Your task to perform on an android device: open app "Google Home" (install if not already installed) Image 0: 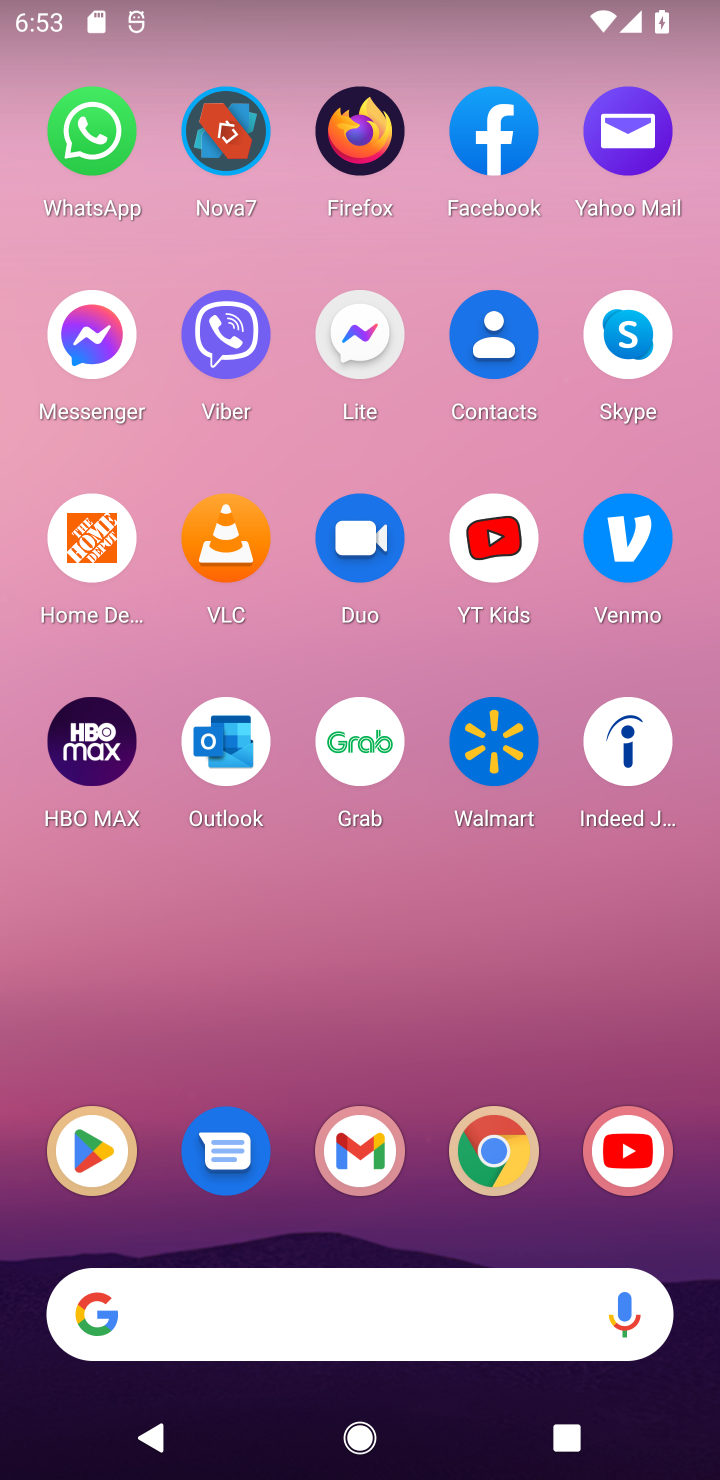
Step 0: click (101, 1157)
Your task to perform on an android device: open app "Google Home" (install if not already installed) Image 1: 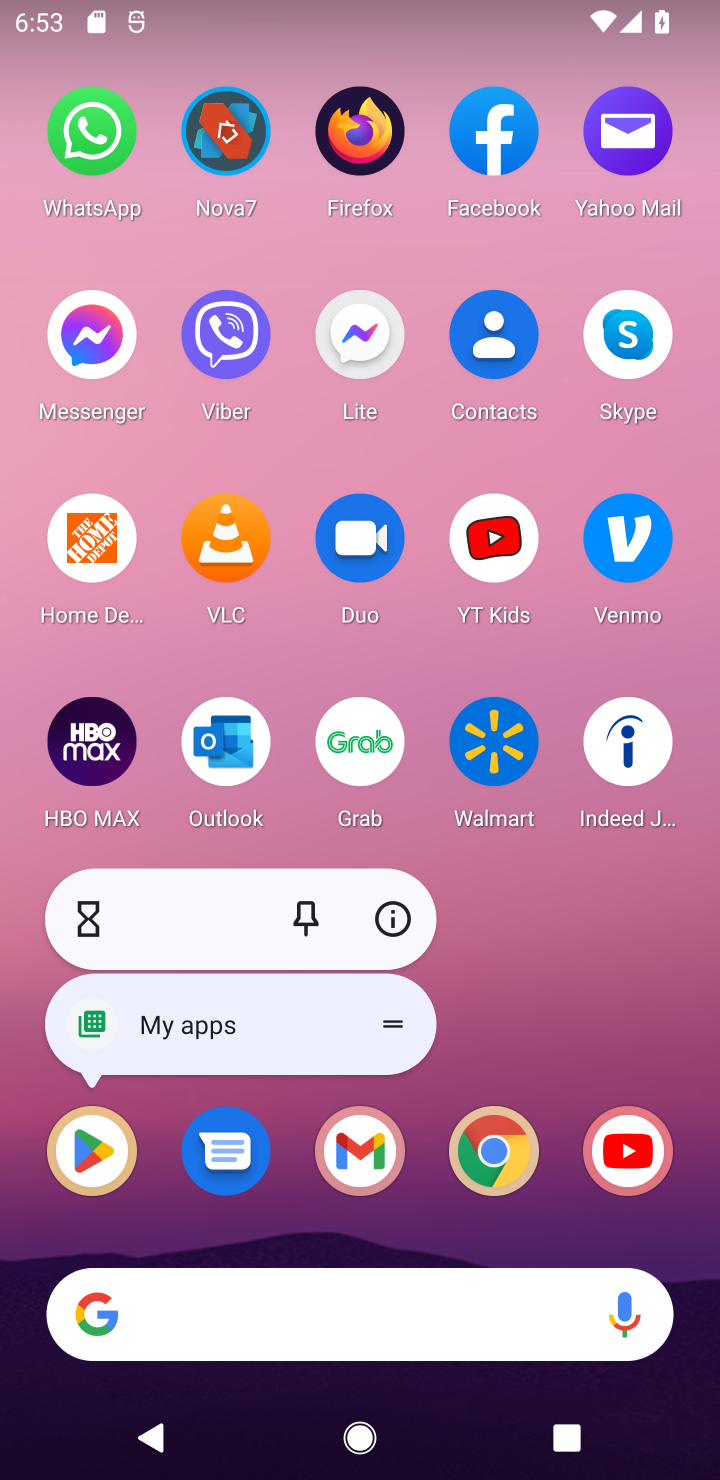
Step 1: click (101, 1157)
Your task to perform on an android device: open app "Google Home" (install if not already installed) Image 2: 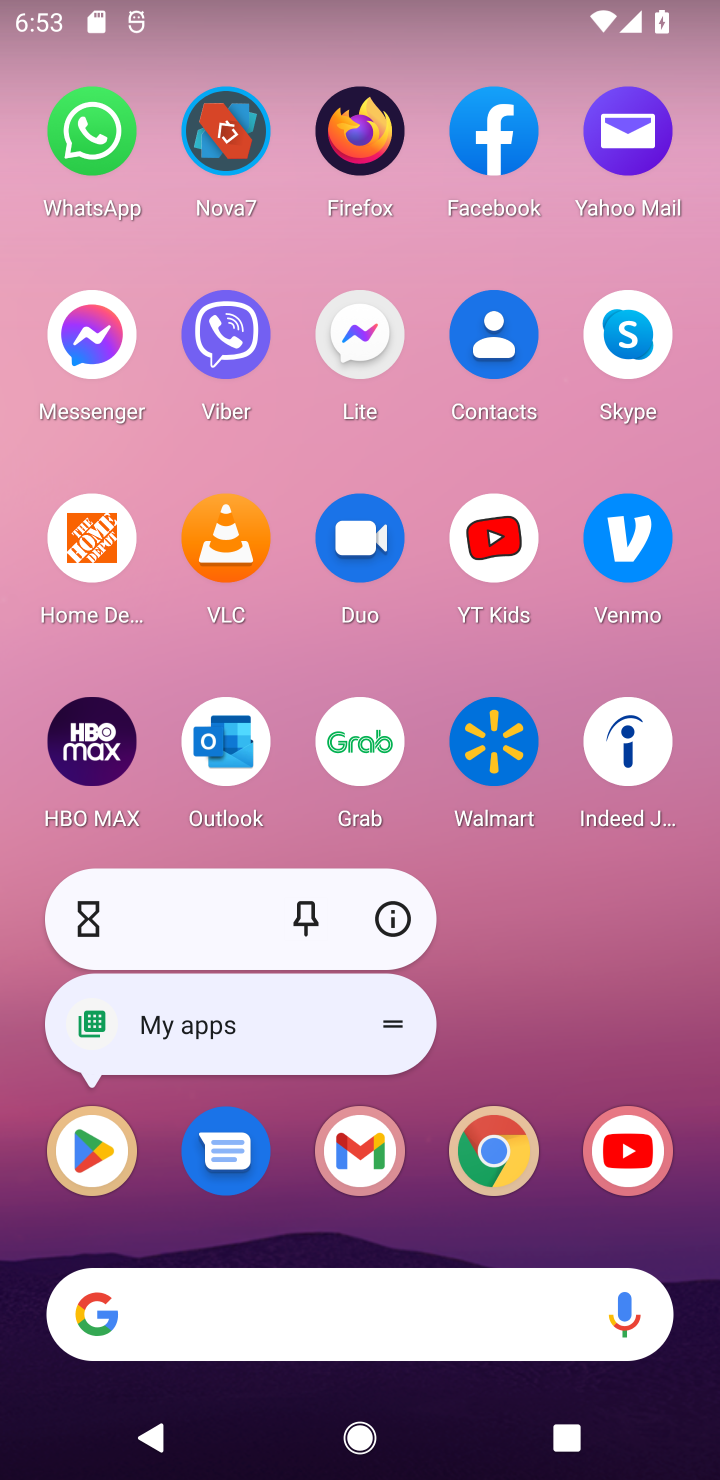
Step 2: click (101, 1157)
Your task to perform on an android device: open app "Google Home" (install if not already installed) Image 3: 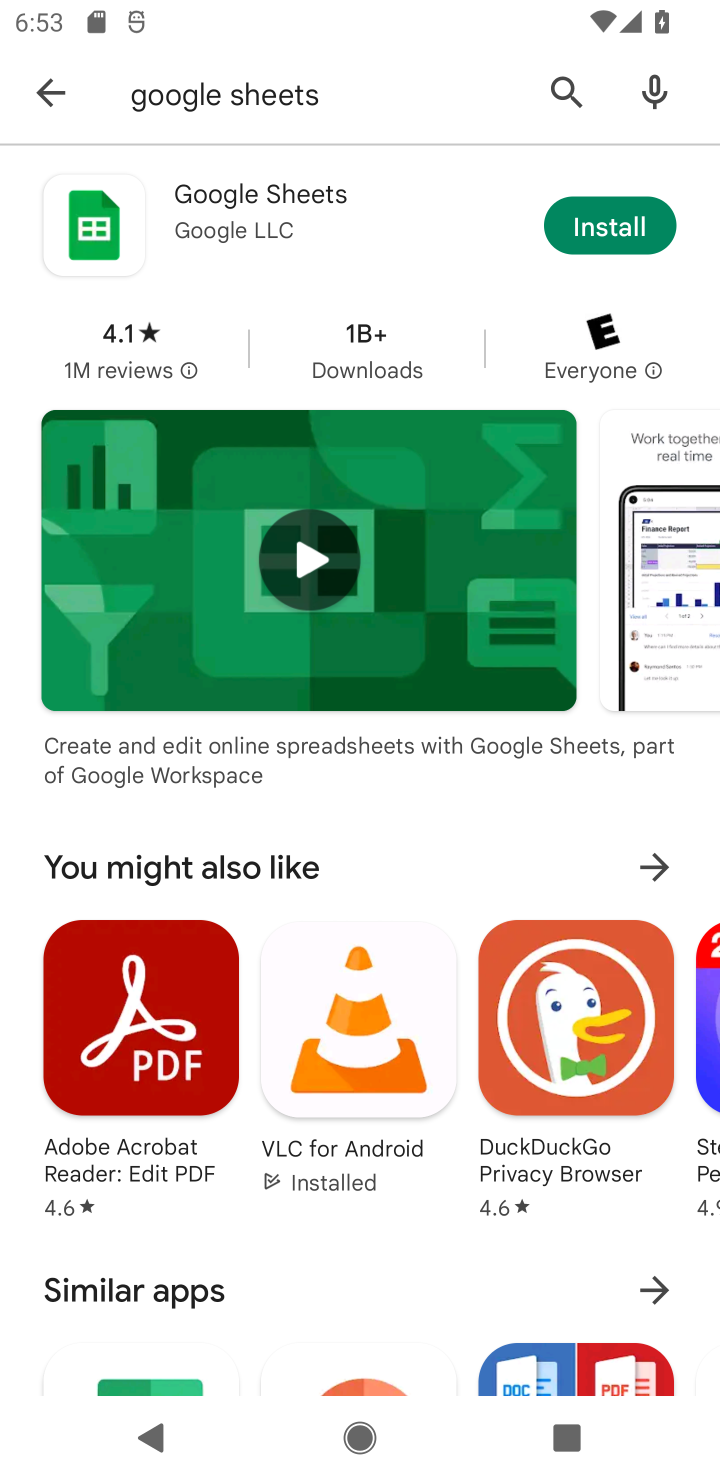
Step 3: click (575, 86)
Your task to perform on an android device: open app "Google Home" (install if not already installed) Image 4: 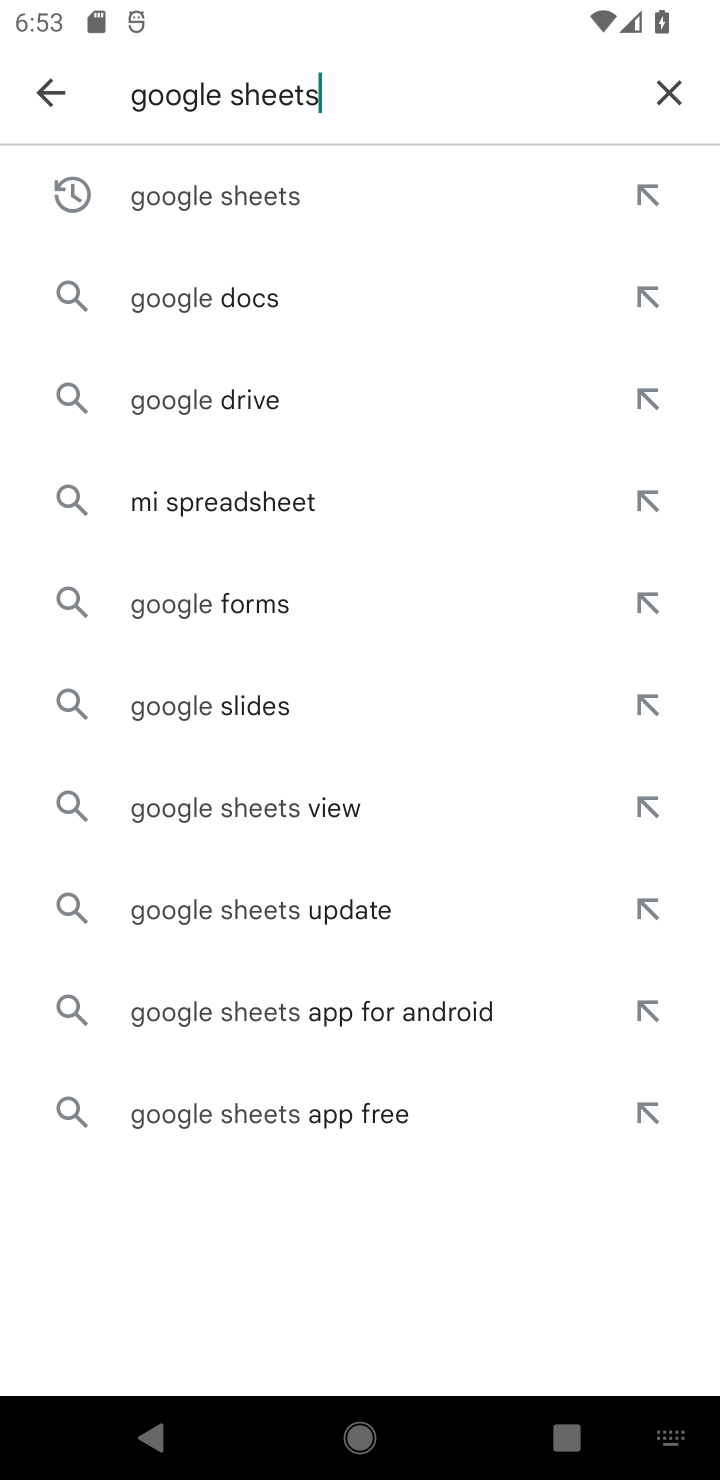
Step 4: click (666, 100)
Your task to perform on an android device: open app "Google Home" (install if not already installed) Image 5: 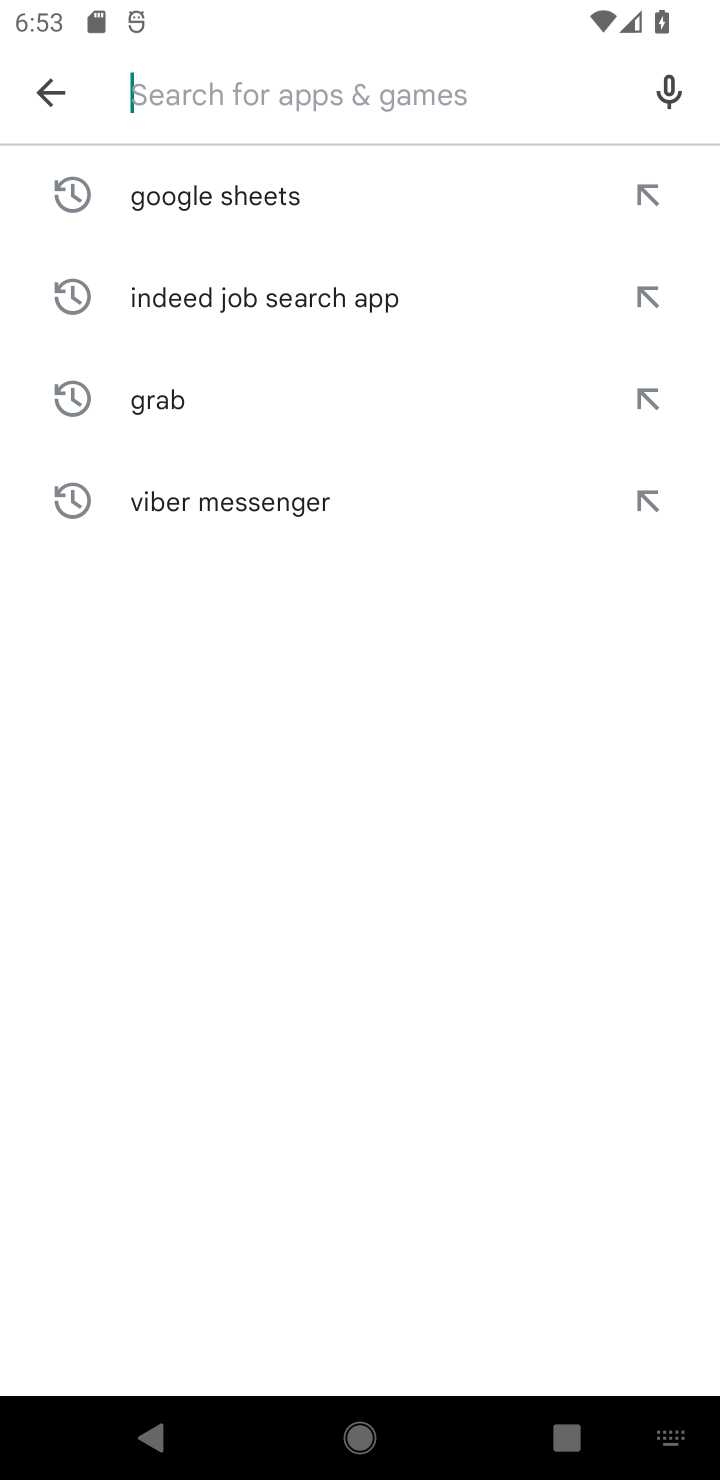
Step 5: type "Google Home"
Your task to perform on an android device: open app "Google Home" (install if not already installed) Image 6: 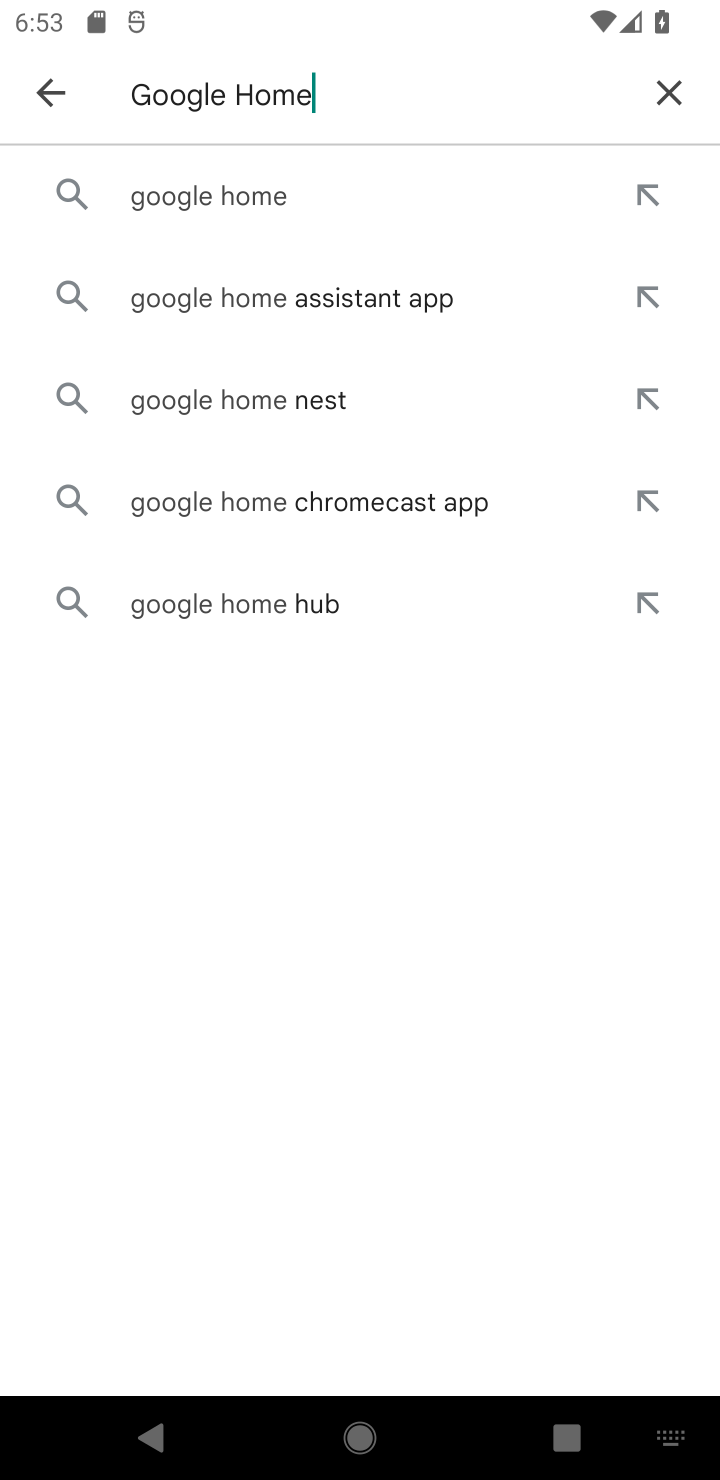
Step 6: click (204, 192)
Your task to perform on an android device: open app "Google Home" (install if not already installed) Image 7: 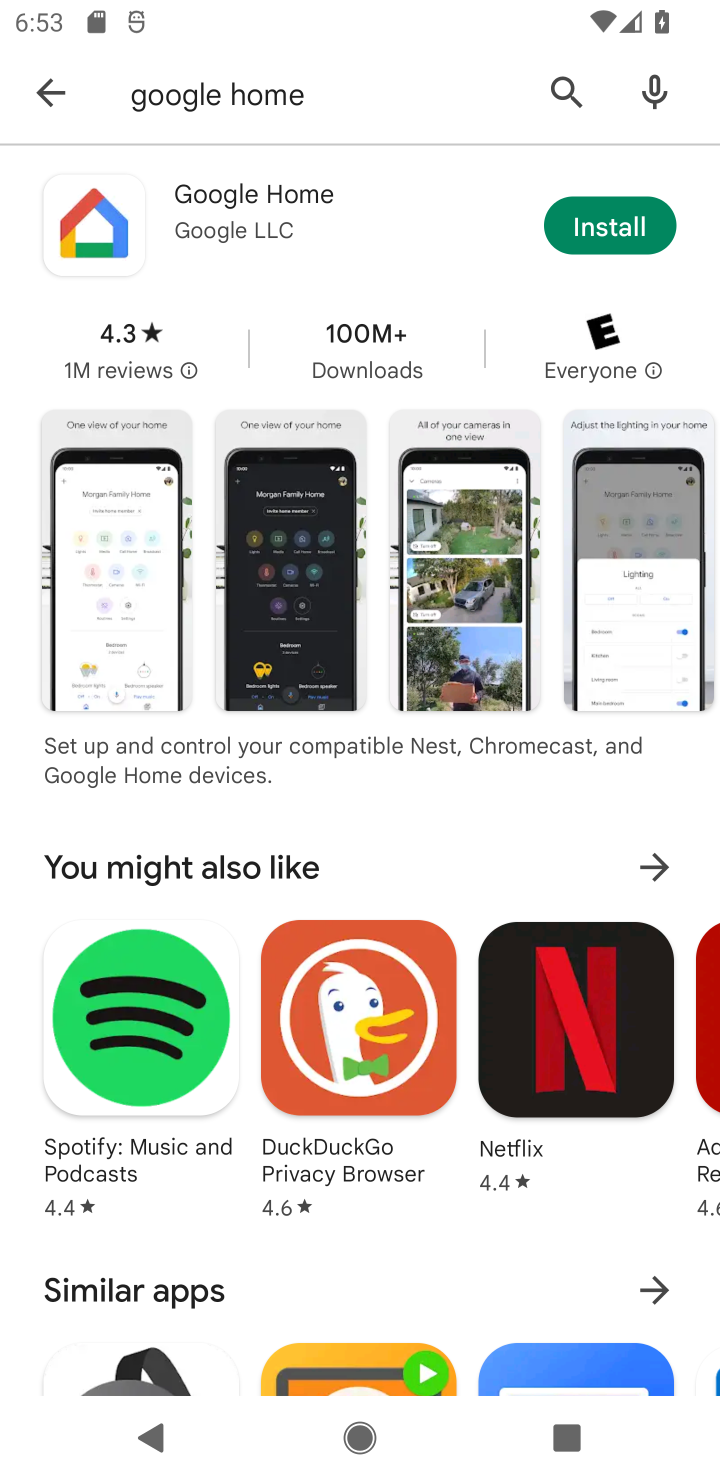
Step 7: click (609, 222)
Your task to perform on an android device: open app "Google Home" (install if not already installed) Image 8: 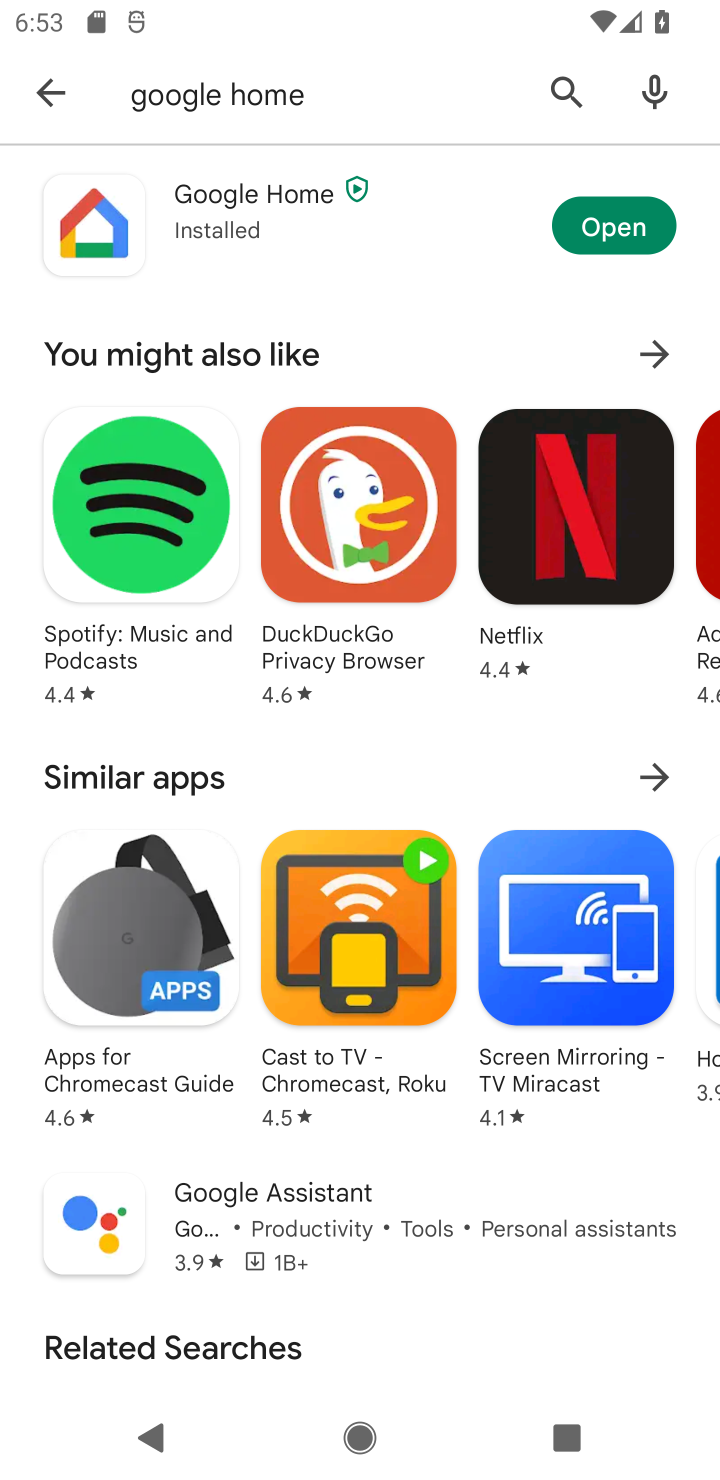
Step 8: click (609, 222)
Your task to perform on an android device: open app "Google Home" (install if not already installed) Image 9: 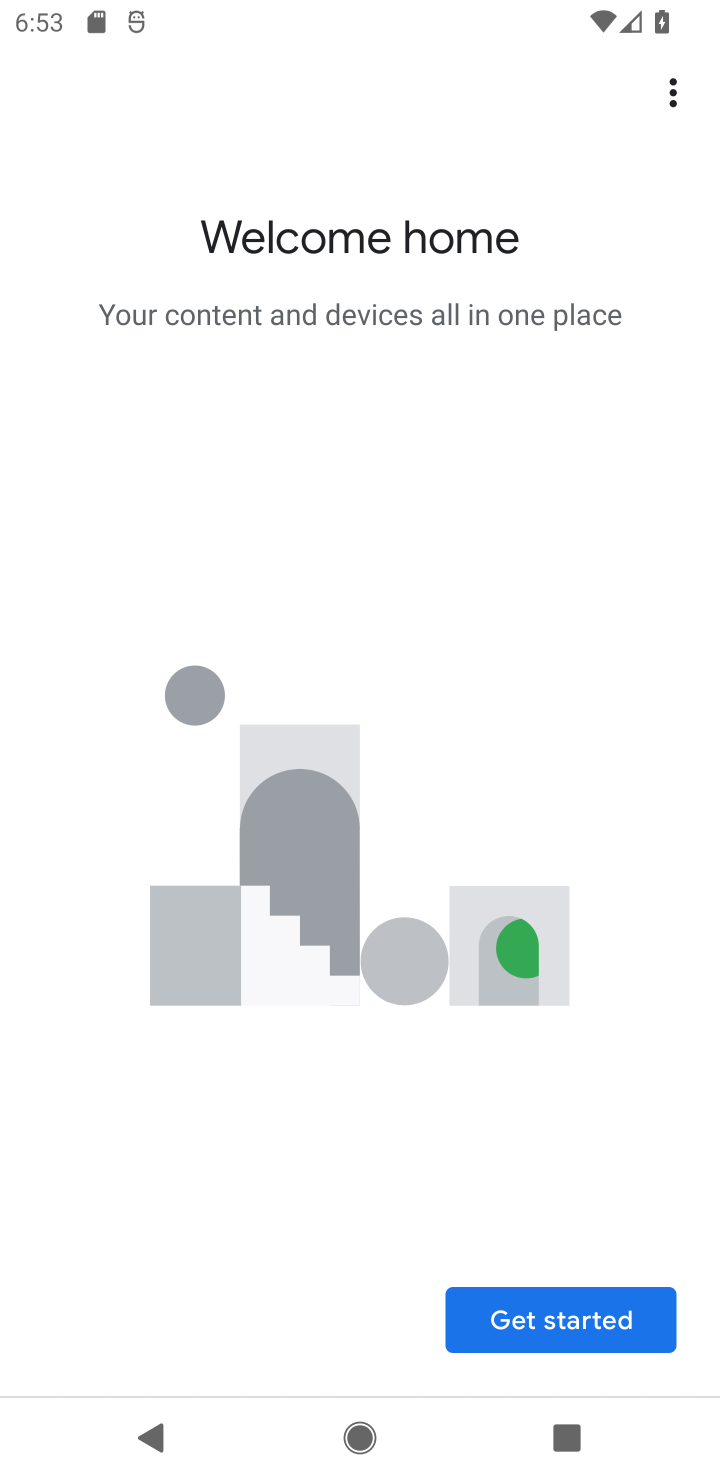
Step 9: task complete